Your task to perform on an android device: clear all cookies in the chrome app Image 0: 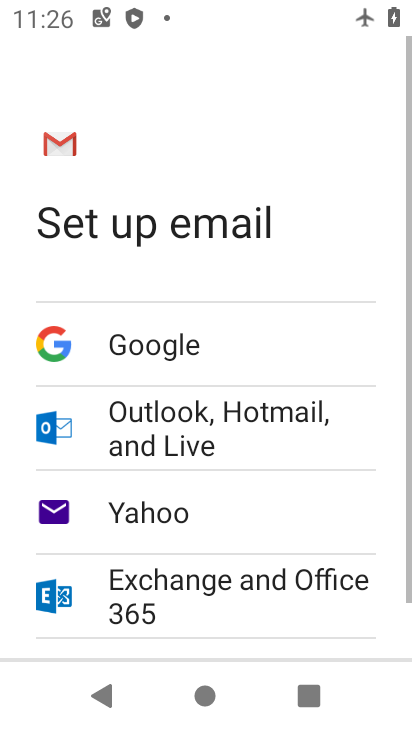
Step 0: press home button
Your task to perform on an android device: clear all cookies in the chrome app Image 1: 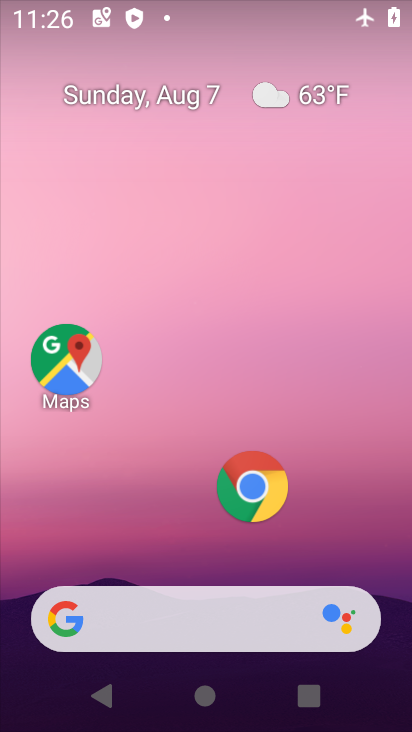
Step 1: click (279, 476)
Your task to perform on an android device: clear all cookies in the chrome app Image 2: 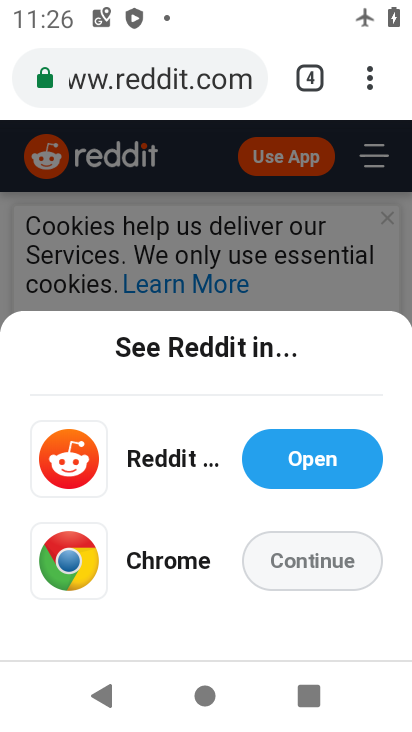
Step 2: click (381, 85)
Your task to perform on an android device: clear all cookies in the chrome app Image 3: 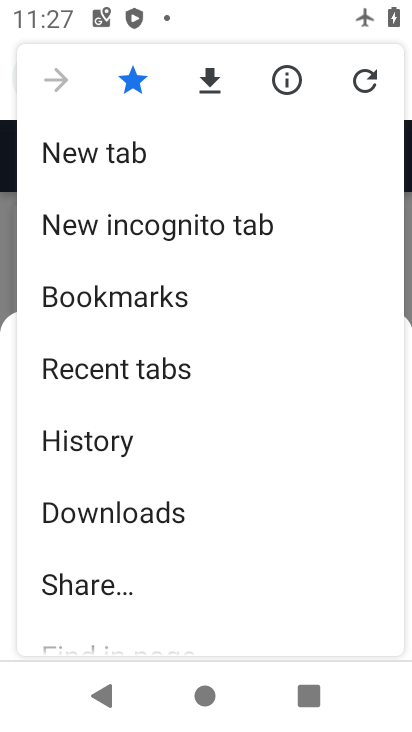
Step 3: click (189, 439)
Your task to perform on an android device: clear all cookies in the chrome app Image 4: 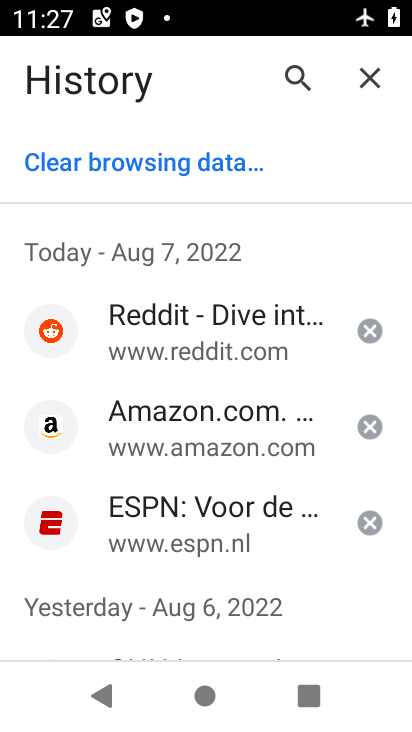
Step 4: click (194, 166)
Your task to perform on an android device: clear all cookies in the chrome app Image 5: 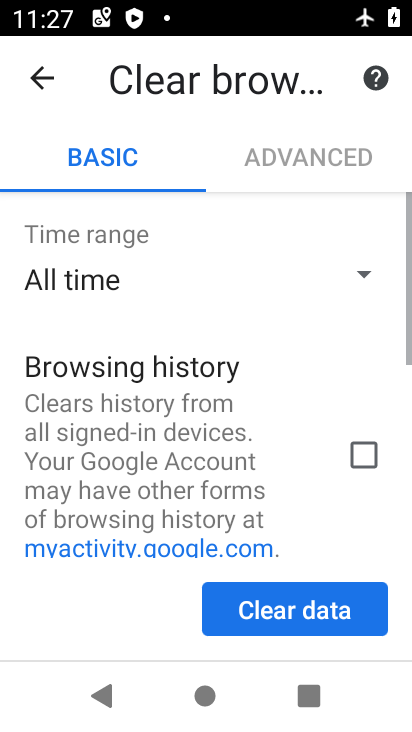
Step 5: click (345, 626)
Your task to perform on an android device: clear all cookies in the chrome app Image 6: 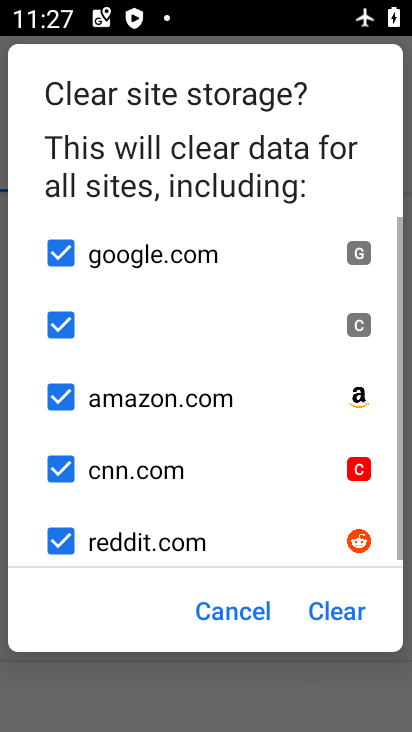
Step 6: click (343, 614)
Your task to perform on an android device: clear all cookies in the chrome app Image 7: 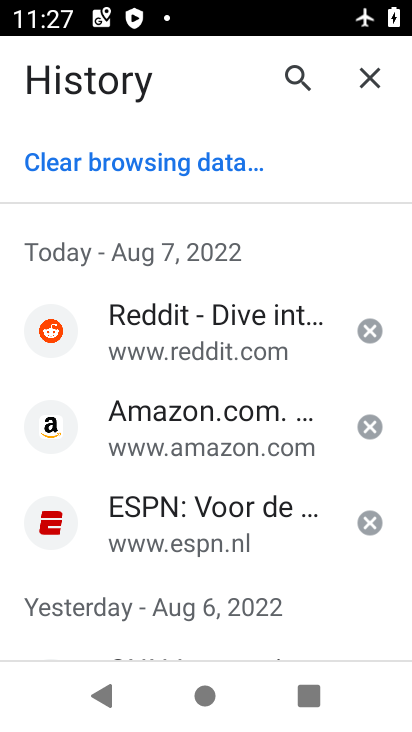
Step 7: task complete